Your task to perform on an android device: Open Youtube and go to the subscriptions tab Image 0: 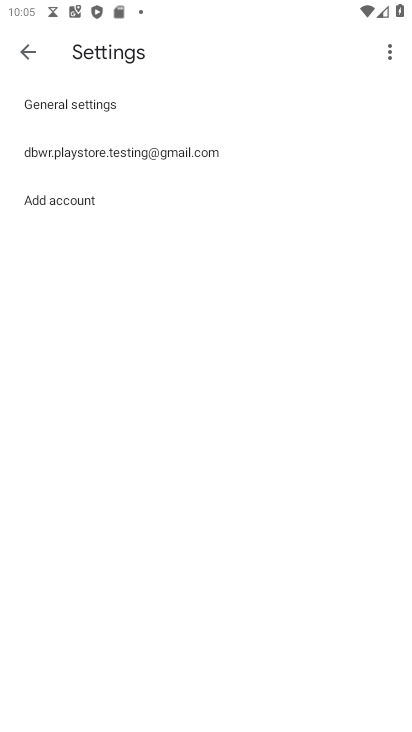
Step 0: press home button
Your task to perform on an android device: Open Youtube and go to the subscriptions tab Image 1: 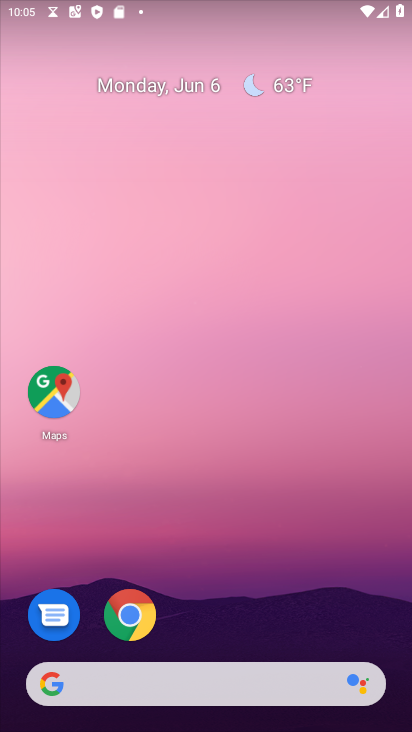
Step 1: drag from (205, 633) to (276, 84)
Your task to perform on an android device: Open Youtube and go to the subscriptions tab Image 2: 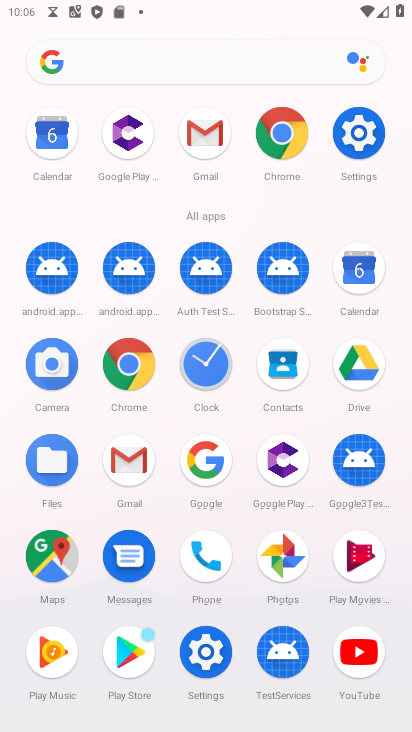
Step 2: click (355, 651)
Your task to perform on an android device: Open Youtube and go to the subscriptions tab Image 3: 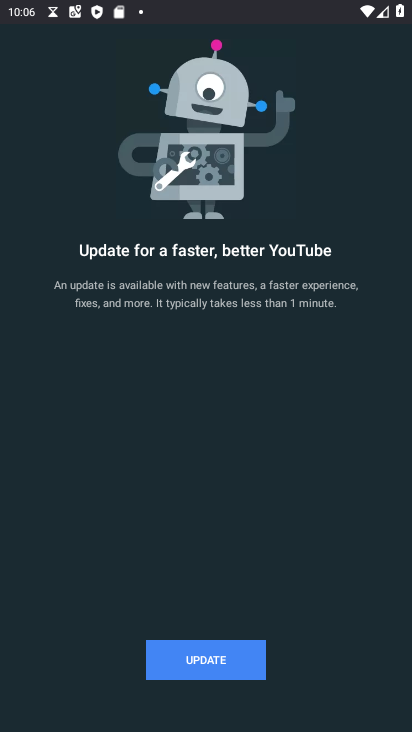
Step 3: click (207, 658)
Your task to perform on an android device: Open Youtube and go to the subscriptions tab Image 4: 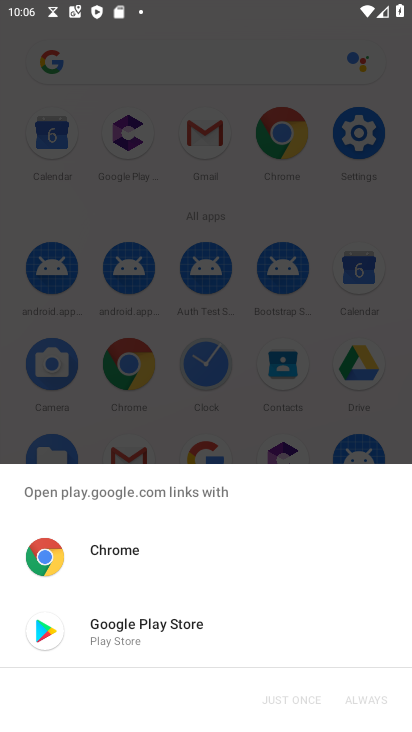
Step 4: click (115, 628)
Your task to perform on an android device: Open Youtube and go to the subscriptions tab Image 5: 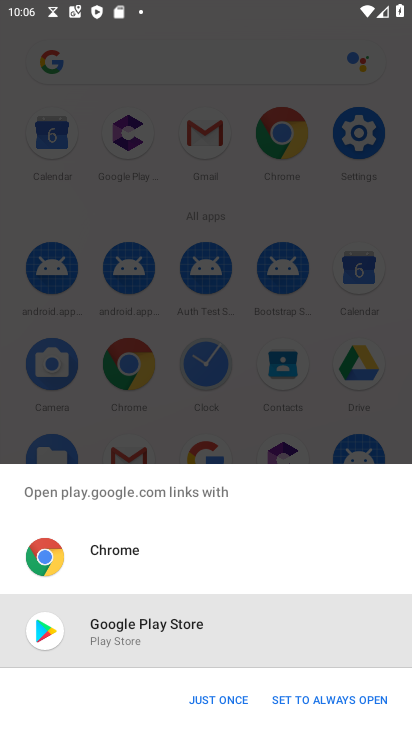
Step 5: click (219, 702)
Your task to perform on an android device: Open Youtube and go to the subscriptions tab Image 6: 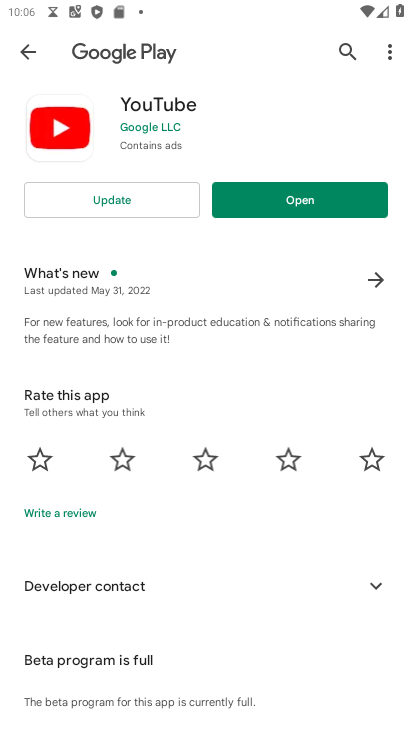
Step 6: click (105, 198)
Your task to perform on an android device: Open Youtube and go to the subscriptions tab Image 7: 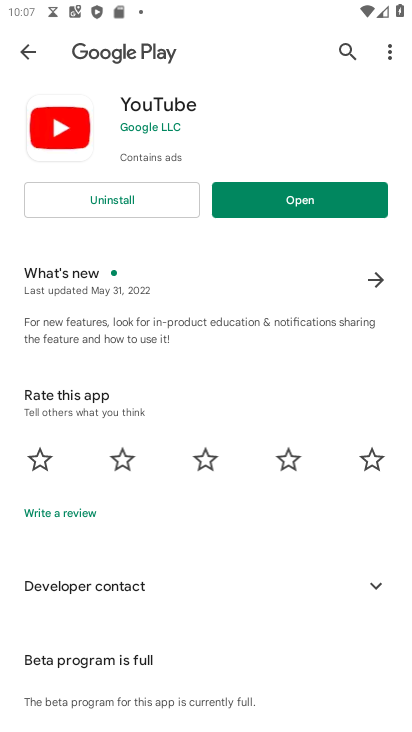
Step 7: click (291, 203)
Your task to perform on an android device: Open Youtube and go to the subscriptions tab Image 8: 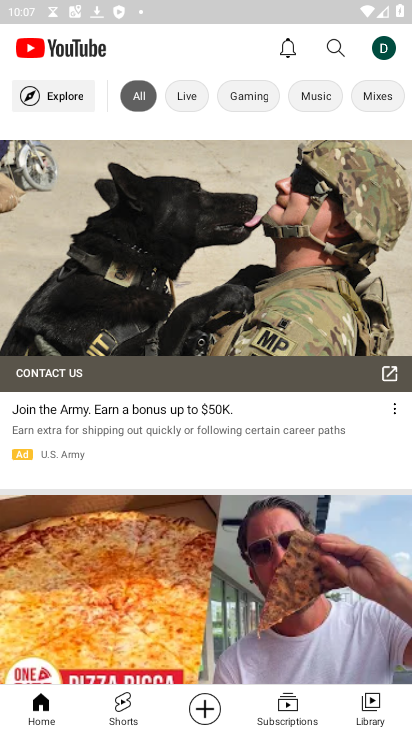
Step 8: click (282, 698)
Your task to perform on an android device: Open Youtube and go to the subscriptions tab Image 9: 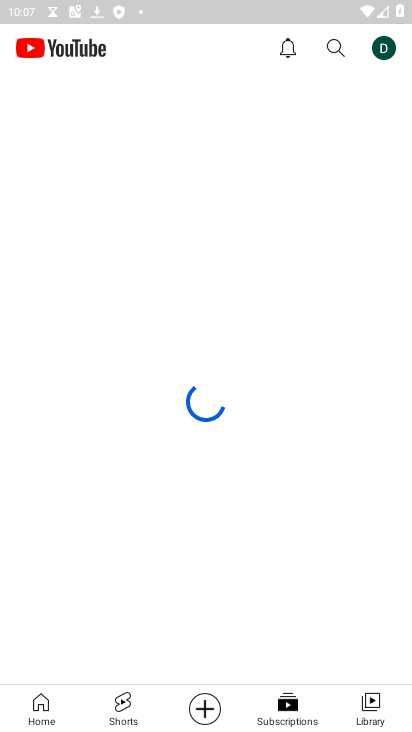
Step 9: click (285, 700)
Your task to perform on an android device: Open Youtube and go to the subscriptions tab Image 10: 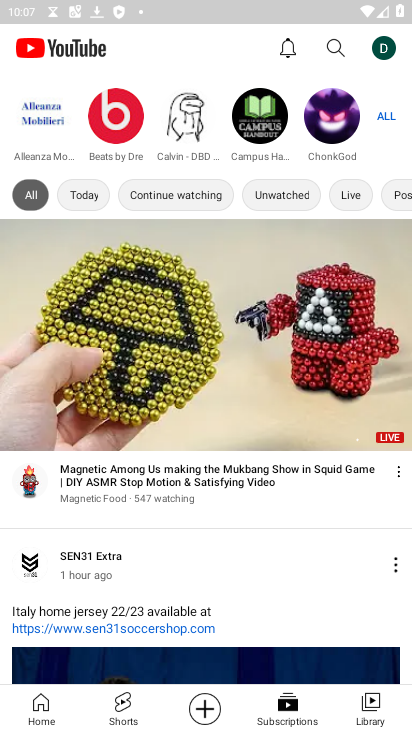
Step 10: task complete